Your task to perform on an android device: Open Google Maps and go to "Timeline" Image 0: 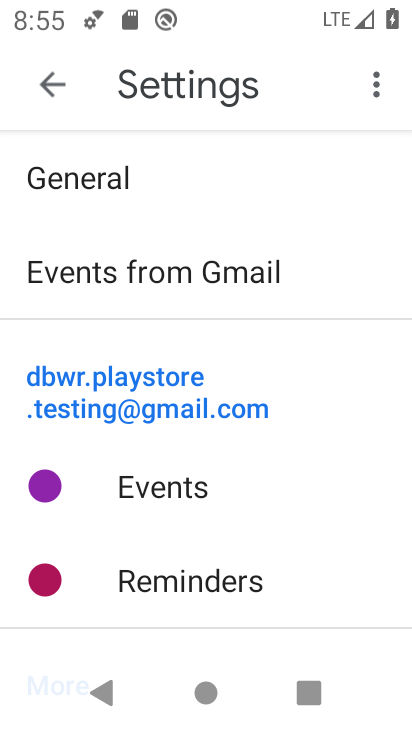
Step 0: press home button
Your task to perform on an android device: Open Google Maps and go to "Timeline" Image 1: 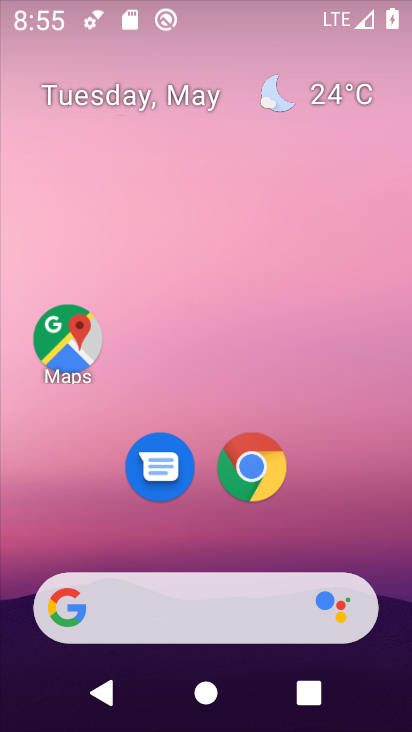
Step 1: click (59, 339)
Your task to perform on an android device: Open Google Maps and go to "Timeline" Image 2: 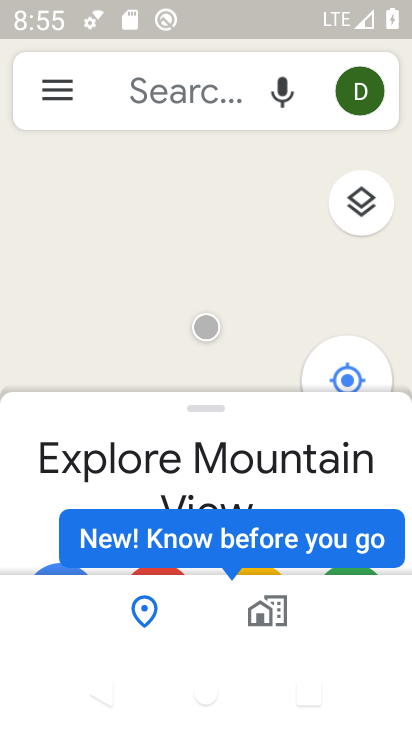
Step 2: click (52, 90)
Your task to perform on an android device: Open Google Maps and go to "Timeline" Image 3: 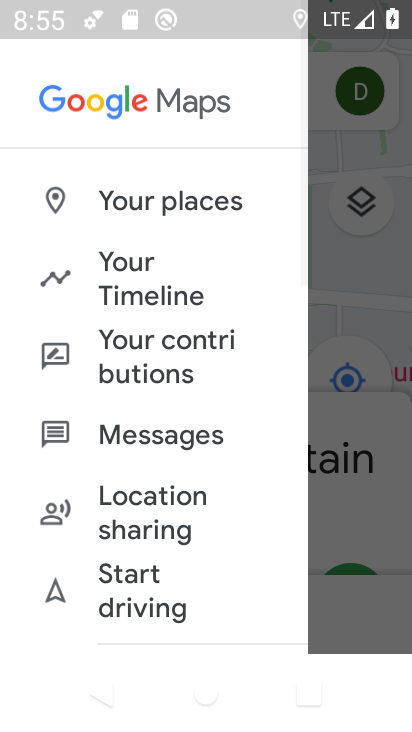
Step 3: click (138, 285)
Your task to perform on an android device: Open Google Maps and go to "Timeline" Image 4: 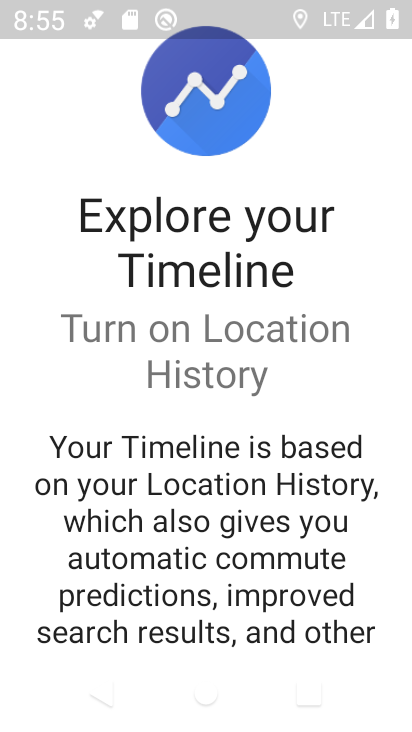
Step 4: drag from (309, 594) to (275, 307)
Your task to perform on an android device: Open Google Maps and go to "Timeline" Image 5: 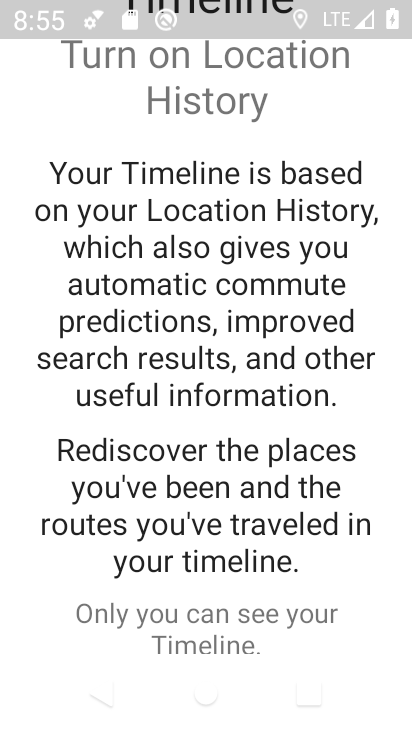
Step 5: drag from (257, 601) to (233, 342)
Your task to perform on an android device: Open Google Maps and go to "Timeline" Image 6: 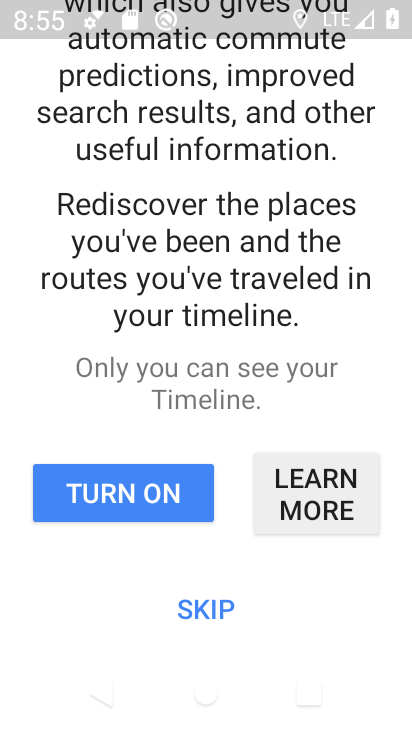
Step 6: click (170, 498)
Your task to perform on an android device: Open Google Maps and go to "Timeline" Image 7: 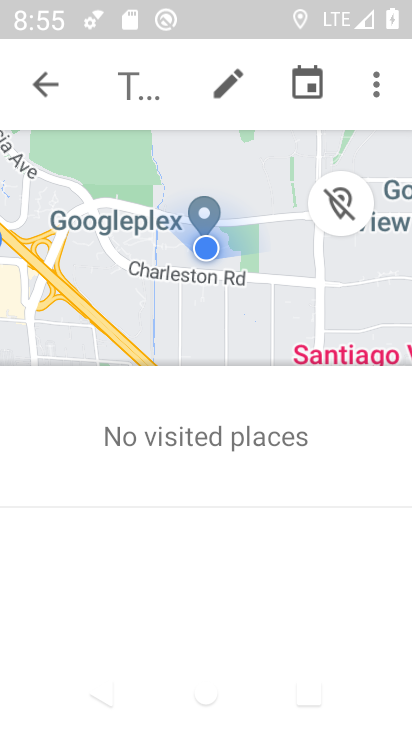
Step 7: task complete